Your task to perform on an android device: Go to calendar. Show me events next week Image 0: 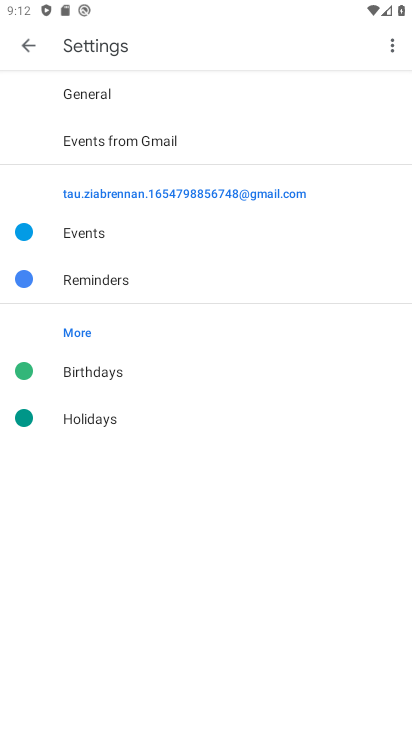
Step 0: press home button
Your task to perform on an android device: Go to calendar. Show me events next week Image 1: 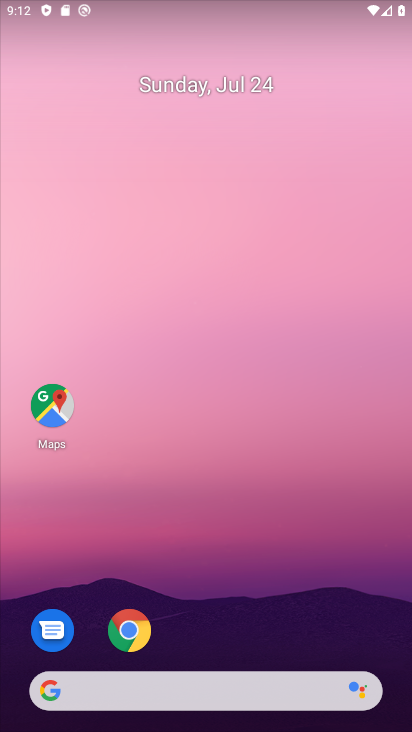
Step 1: drag from (301, 612) to (276, 360)
Your task to perform on an android device: Go to calendar. Show me events next week Image 2: 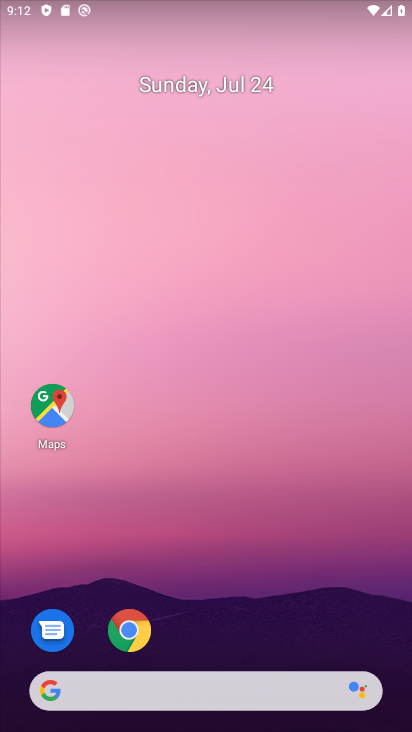
Step 2: drag from (244, 613) to (244, 122)
Your task to perform on an android device: Go to calendar. Show me events next week Image 3: 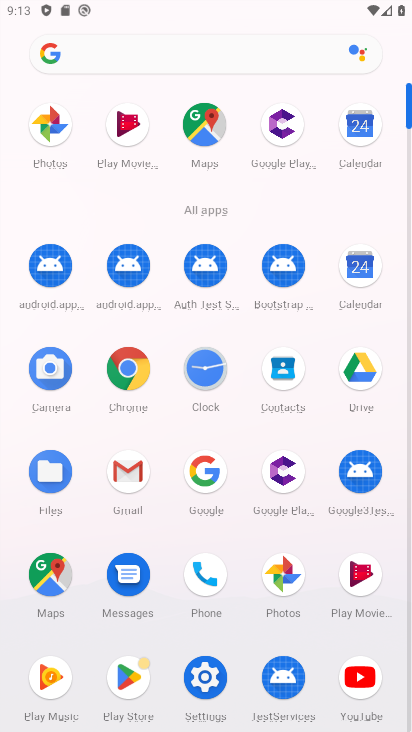
Step 3: click (370, 256)
Your task to perform on an android device: Go to calendar. Show me events next week Image 4: 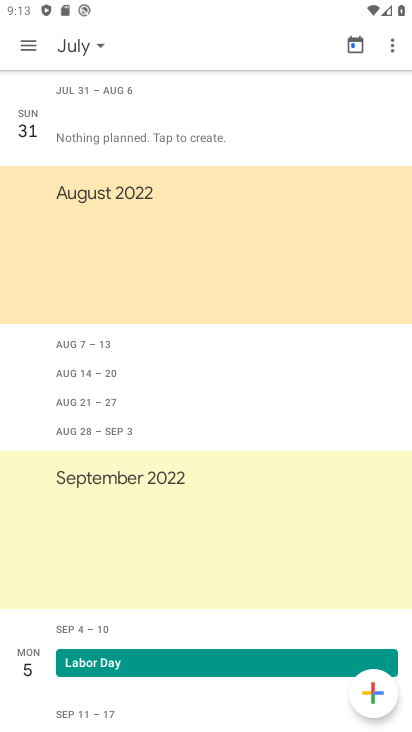
Step 4: click (121, 50)
Your task to perform on an android device: Go to calendar. Show me events next week Image 5: 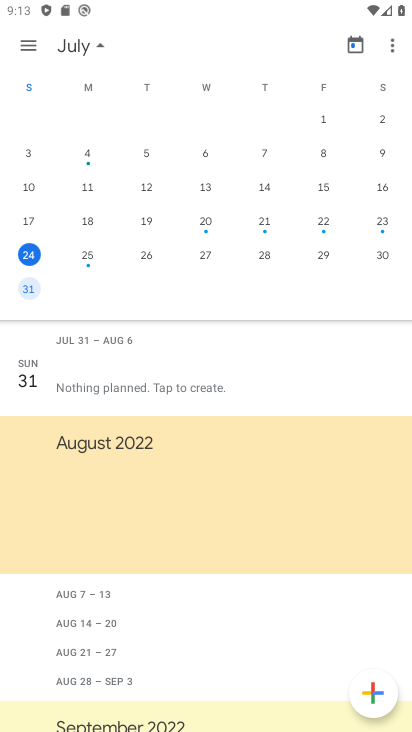
Step 5: click (39, 290)
Your task to perform on an android device: Go to calendar. Show me events next week Image 6: 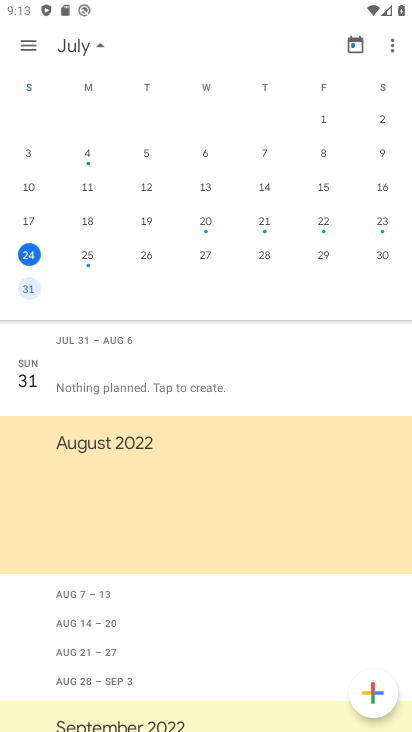
Step 6: task complete